Your task to perform on an android device: Show me the alarms in the clock app Image 0: 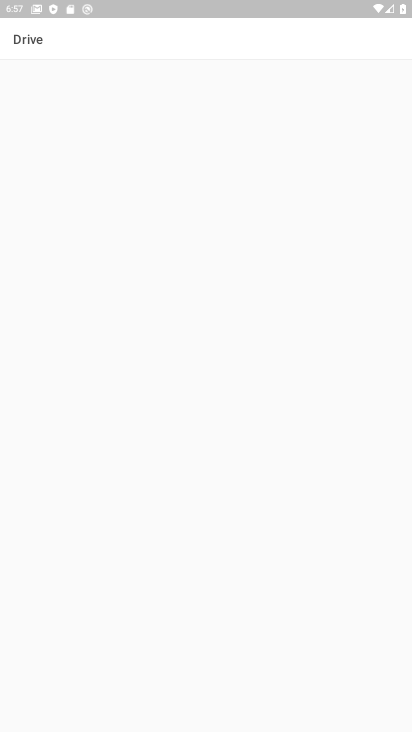
Step 0: press home button
Your task to perform on an android device: Show me the alarms in the clock app Image 1: 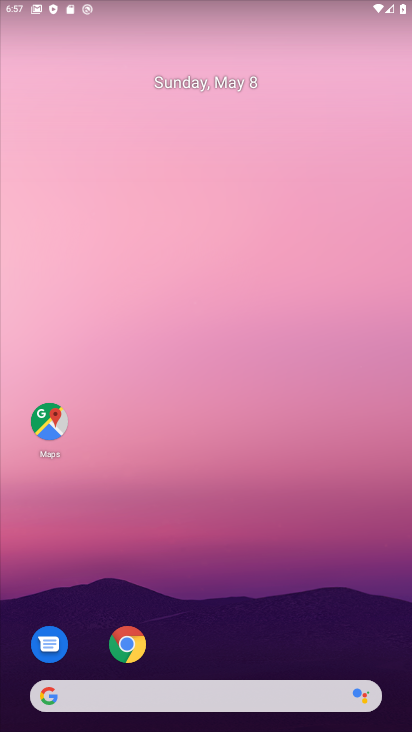
Step 1: drag from (318, 628) to (411, 141)
Your task to perform on an android device: Show me the alarms in the clock app Image 2: 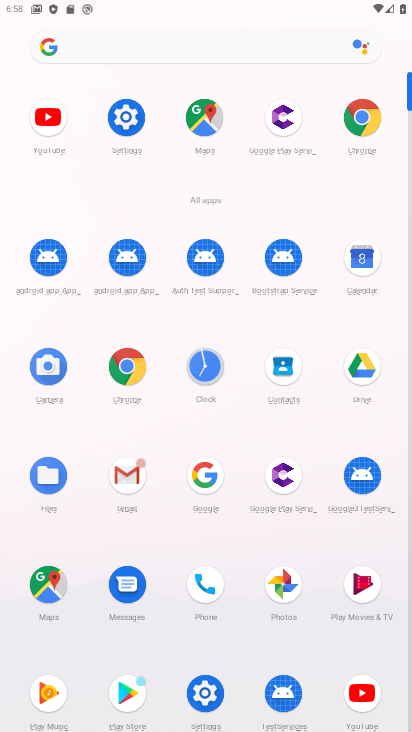
Step 2: click (207, 370)
Your task to perform on an android device: Show me the alarms in the clock app Image 3: 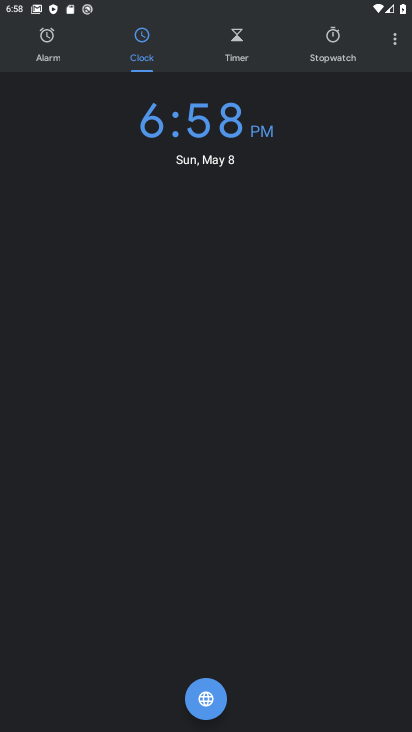
Step 3: click (40, 27)
Your task to perform on an android device: Show me the alarms in the clock app Image 4: 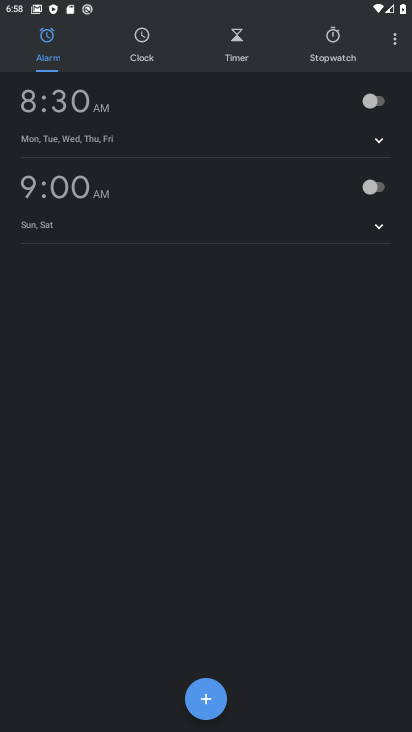
Step 4: task complete